Your task to perform on an android device: change notification settings in the gmail app Image 0: 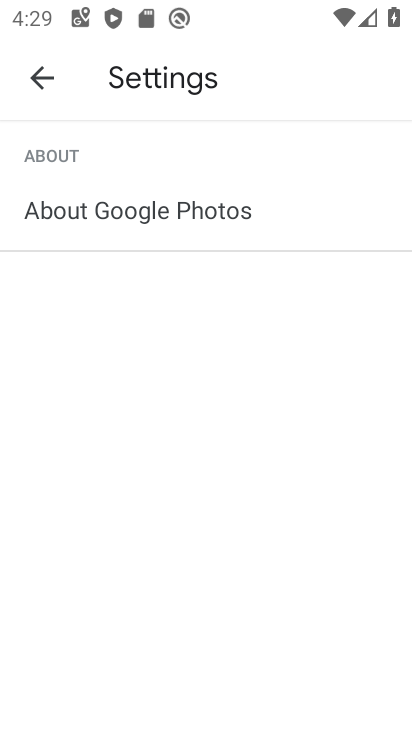
Step 0: press back button
Your task to perform on an android device: change notification settings in the gmail app Image 1: 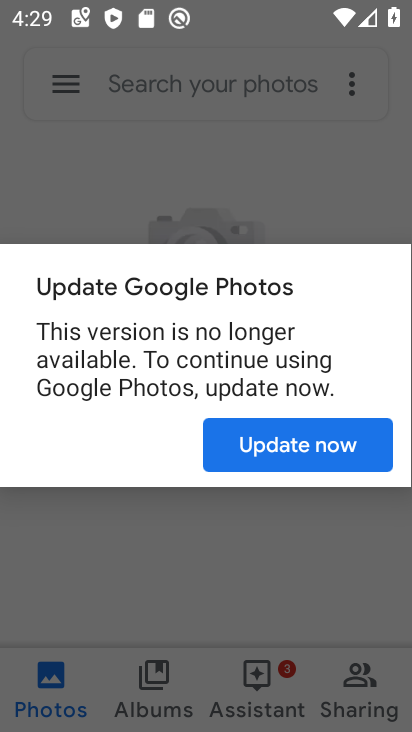
Step 1: press home button
Your task to perform on an android device: change notification settings in the gmail app Image 2: 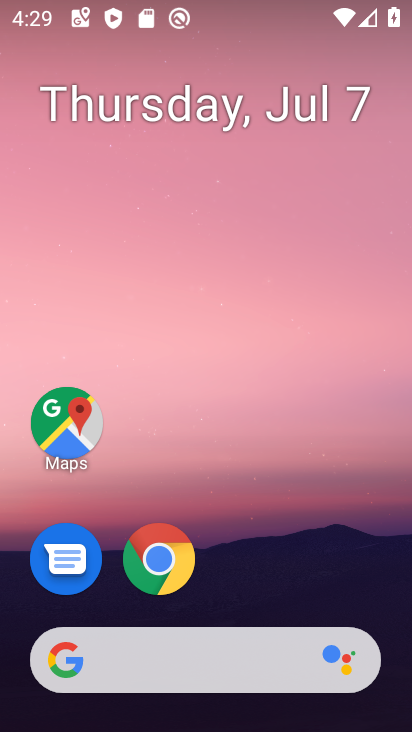
Step 2: drag from (243, 478) to (301, 57)
Your task to perform on an android device: change notification settings in the gmail app Image 3: 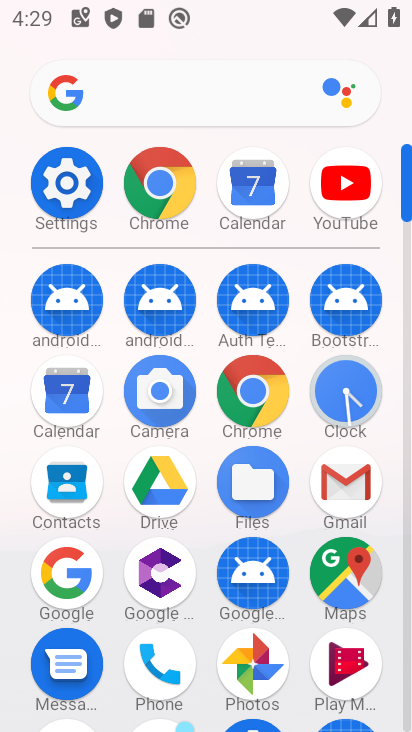
Step 3: click (342, 490)
Your task to perform on an android device: change notification settings in the gmail app Image 4: 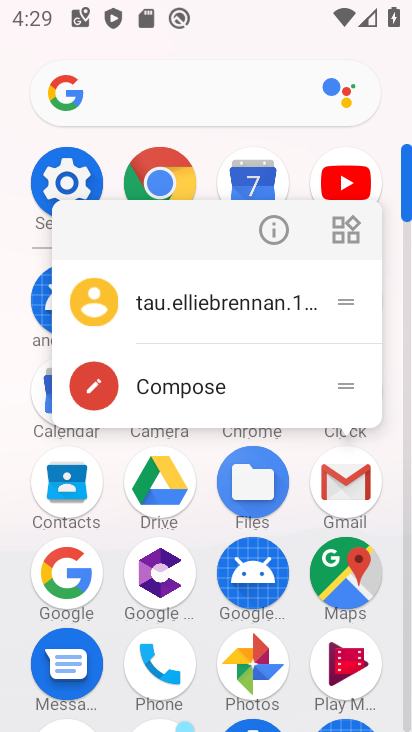
Step 4: click (276, 225)
Your task to perform on an android device: change notification settings in the gmail app Image 5: 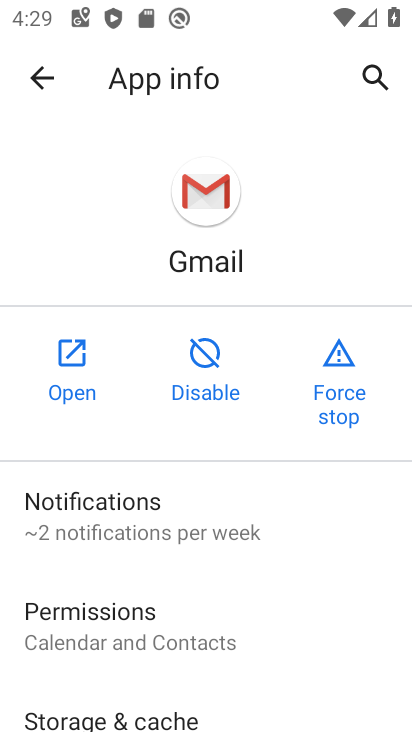
Step 5: click (139, 507)
Your task to perform on an android device: change notification settings in the gmail app Image 6: 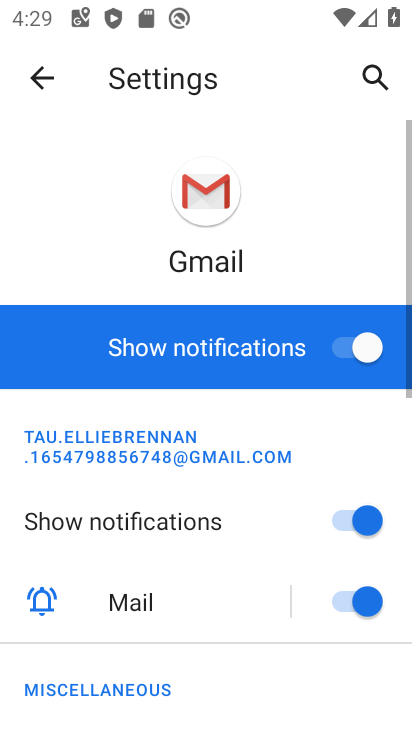
Step 6: drag from (187, 624) to (243, 215)
Your task to perform on an android device: change notification settings in the gmail app Image 7: 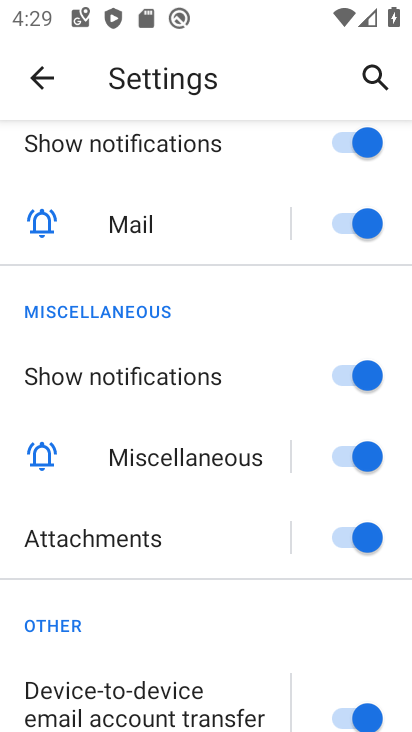
Step 7: click (371, 141)
Your task to perform on an android device: change notification settings in the gmail app Image 8: 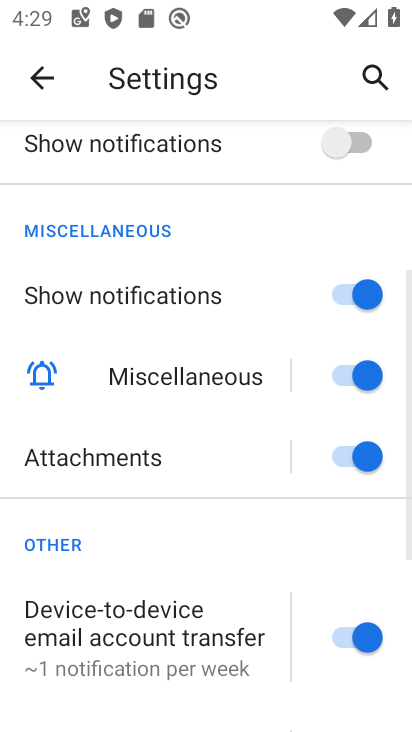
Step 8: task complete